Your task to perform on an android device: check the backup settings in the google photos Image 0: 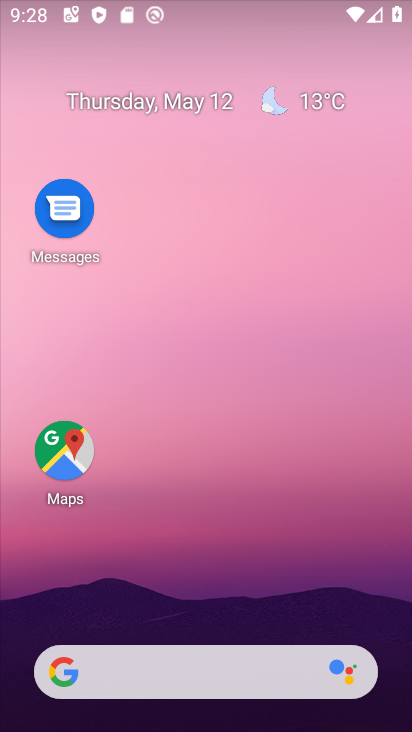
Step 0: drag from (192, 632) to (163, 3)
Your task to perform on an android device: check the backup settings in the google photos Image 1: 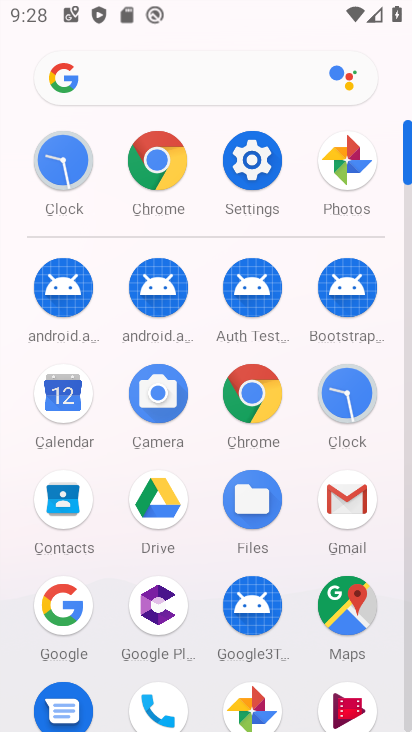
Step 1: click (230, 693)
Your task to perform on an android device: check the backup settings in the google photos Image 2: 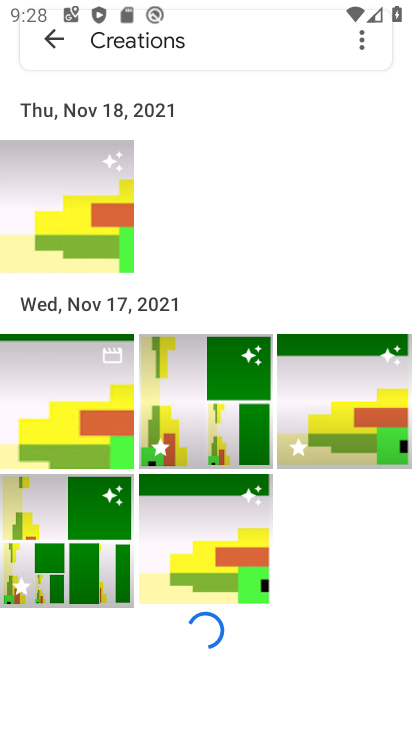
Step 2: click (54, 44)
Your task to perform on an android device: check the backup settings in the google photos Image 3: 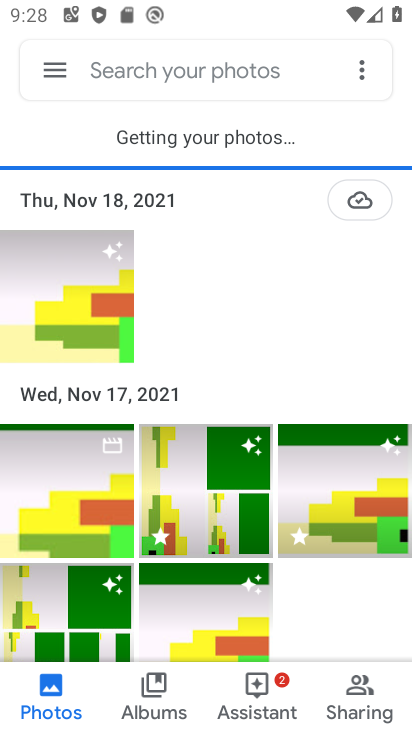
Step 3: click (43, 74)
Your task to perform on an android device: check the backup settings in the google photos Image 4: 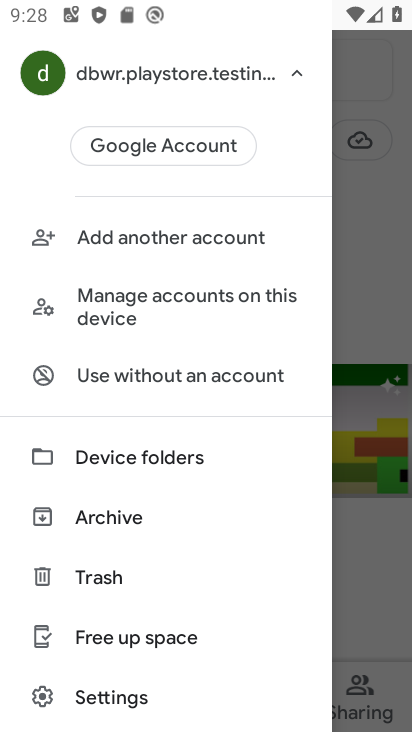
Step 4: click (107, 709)
Your task to perform on an android device: check the backup settings in the google photos Image 5: 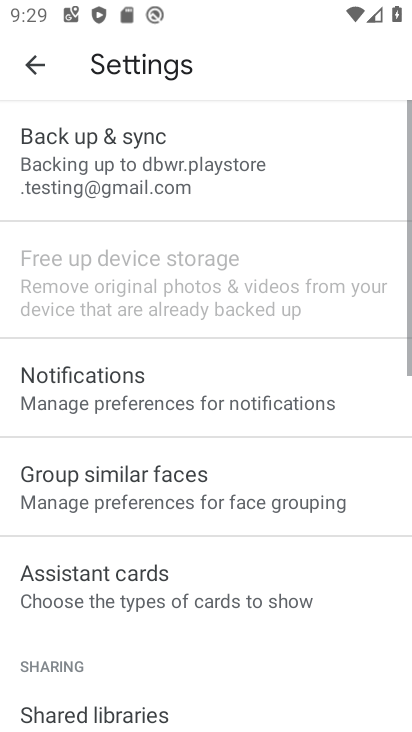
Step 5: click (113, 182)
Your task to perform on an android device: check the backup settings in the google photos Image 6: 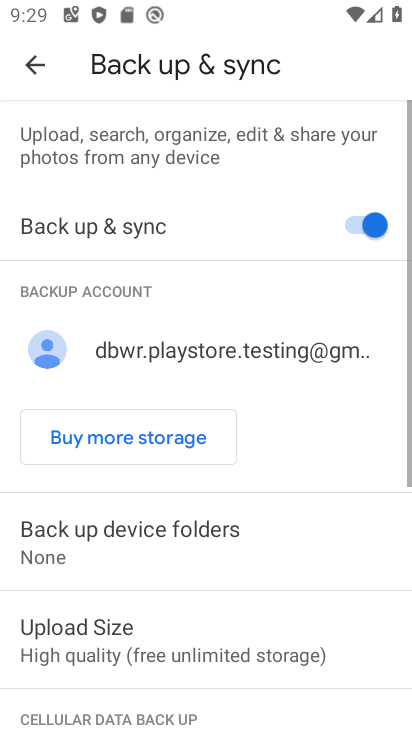
Step 6: task complete